Your task to perform on an android device: move an email to a new category in the gmail app Image 0: 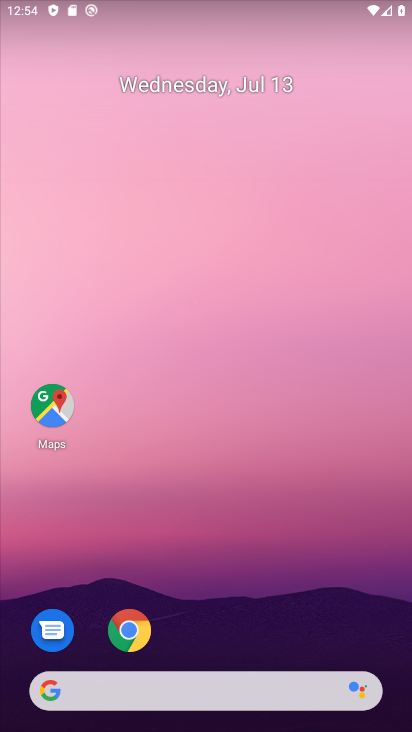
Step 0: drag from (230, 666) to (349, 130)
Your task to perform on an android device: move an email to a new category in the gmail app Image 1: 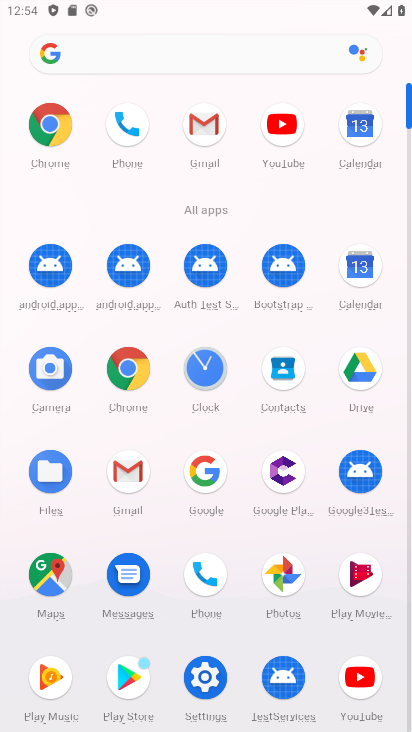
Step 1: click (194, 130)
Your task to perform on an android device: move an email to a new category in the gmail app Image 2: 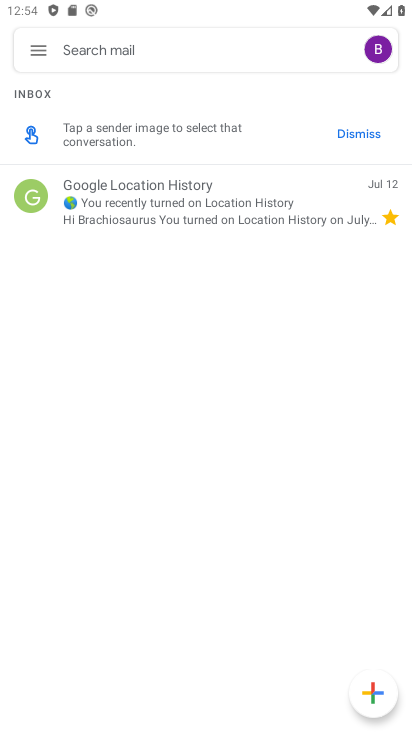
Step 2: click (392, 217)
Your task to perform on an android device: move an email to a new category in the gmail app Image 3: 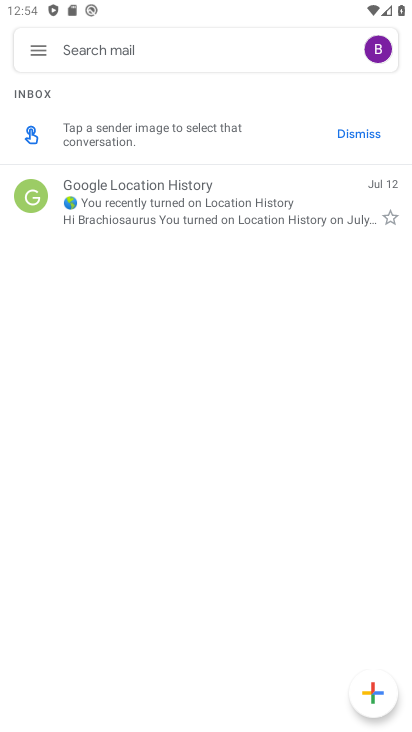
Step 3: task complete